Your task to perform on an android device: What's the weather? Image 0: 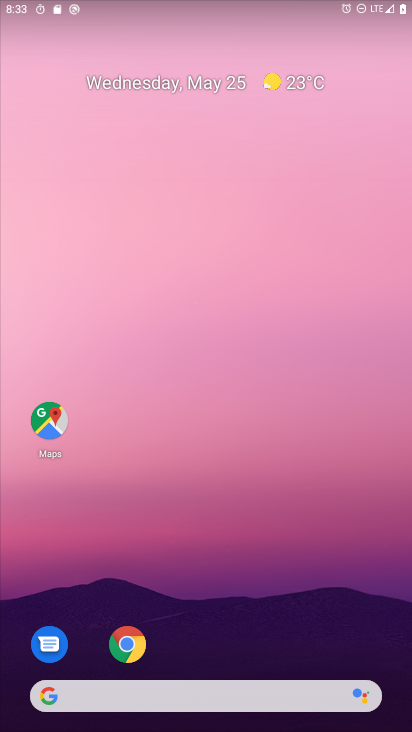
Step 0: drag from (335, 653) to (331, 33)
Your task to perform on an android device: What's the weather? Image 1: 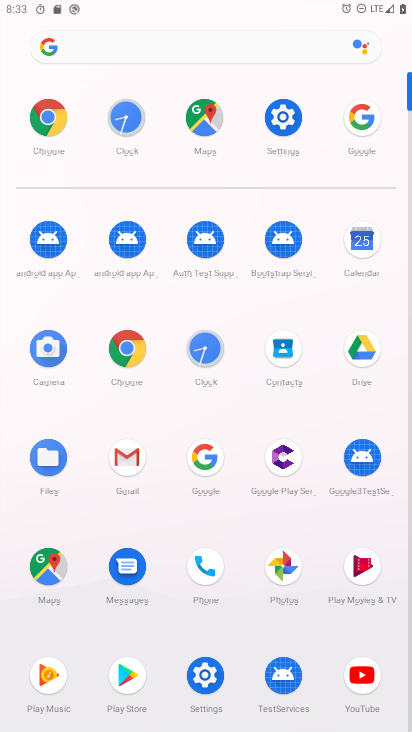
Step 1: click (195, 450)
Your task to perform on an android device: What's the weather? Image 2: 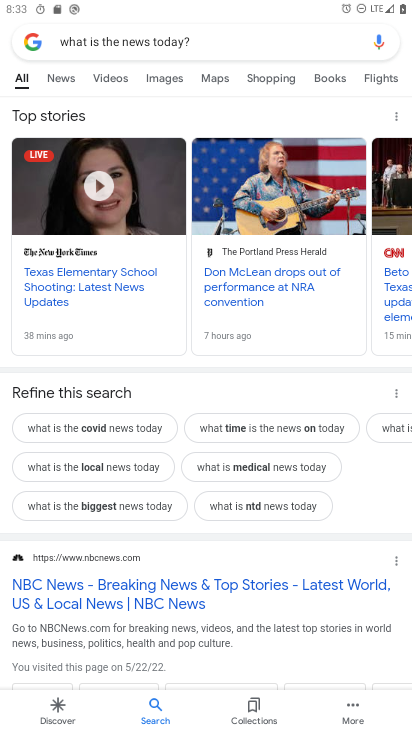
Step 2: press back button
Your task to perform on an android device: What's the weather? Image 3: 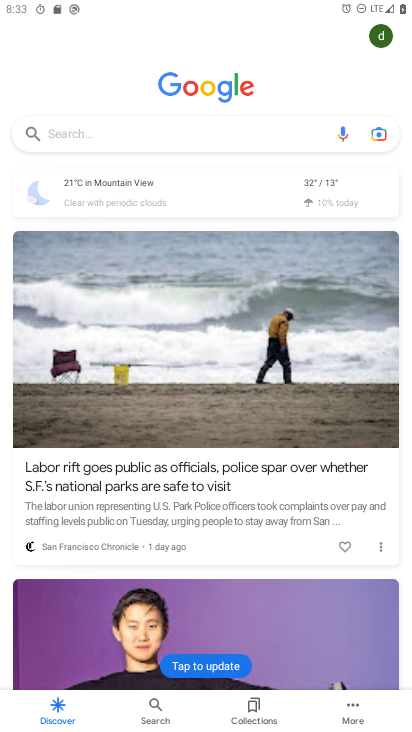
Step 3: click (171, 125)
Your task to perform on an android device: What's the weather? Image 4: 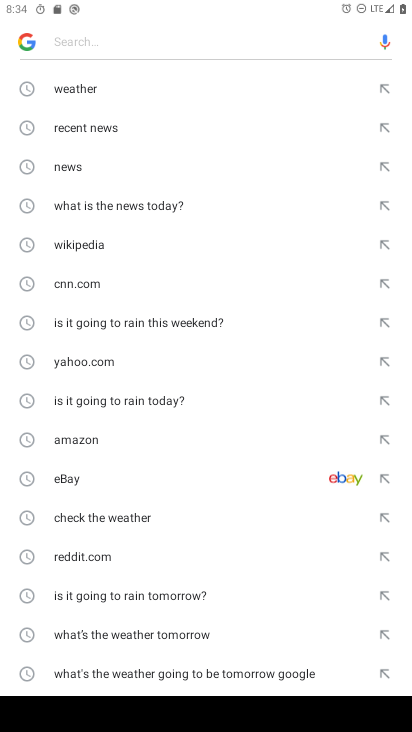
Step 4: click (76, 91)
Your task to perform on an android device: What's the weather? Image 5: 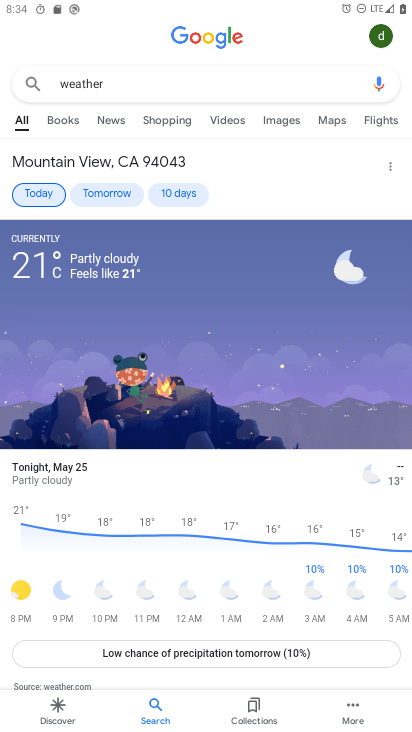
Step 5: task complete